Your task to perform on an android device: delete the emails in spam in the gmail app Image 0: 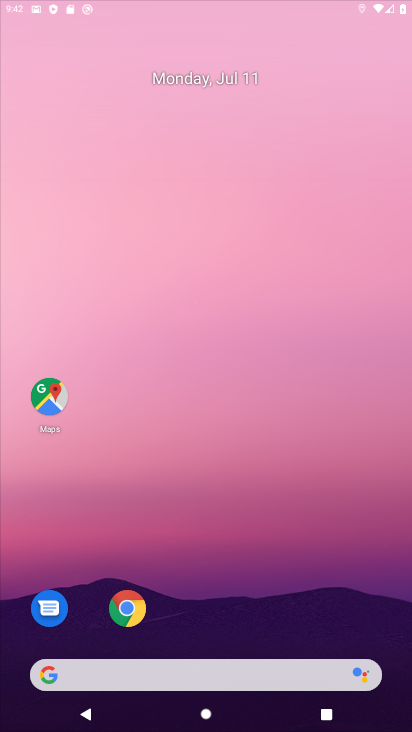
Step 0: drag from (291, 689) to (284, 214)
Your task to perform on an android device: delete the emails in spam in the gmail app Image 1: 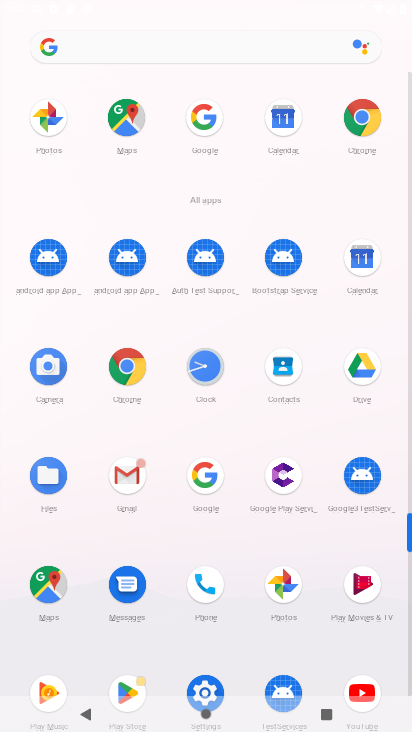
Step 1: click (120, 471)
Your task to perform on an android device: delete the emails in spam in the gmail app Image 2: 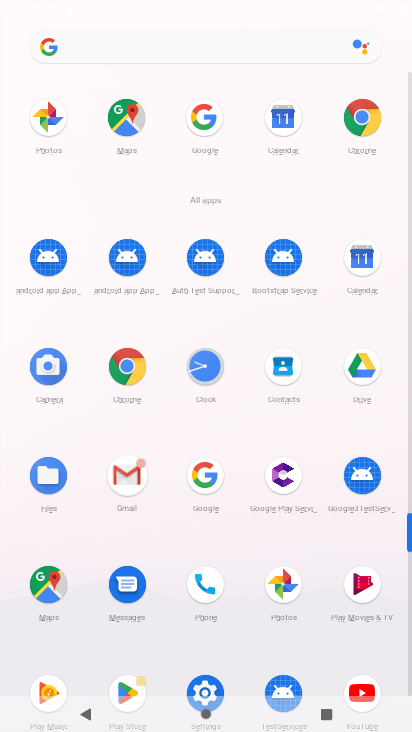
Step 2: click (120, 471)
Your task to perform on an android device: delete the emails in spam in the gmail app Image 3: 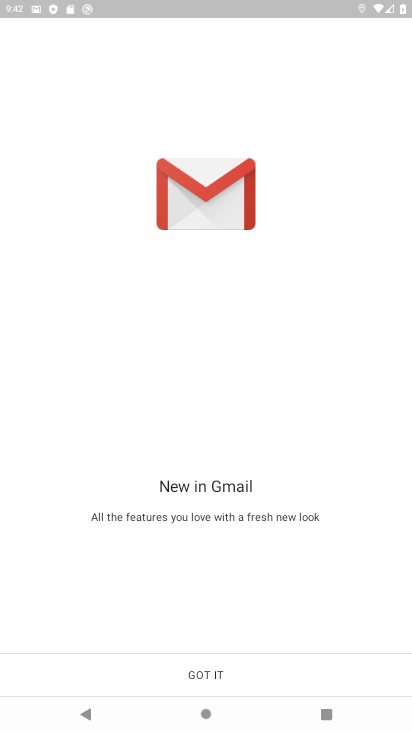
Step 3: click (225, 673)
Your task to perform on an android device: delete the emails in spam in the gmail app Image 4: 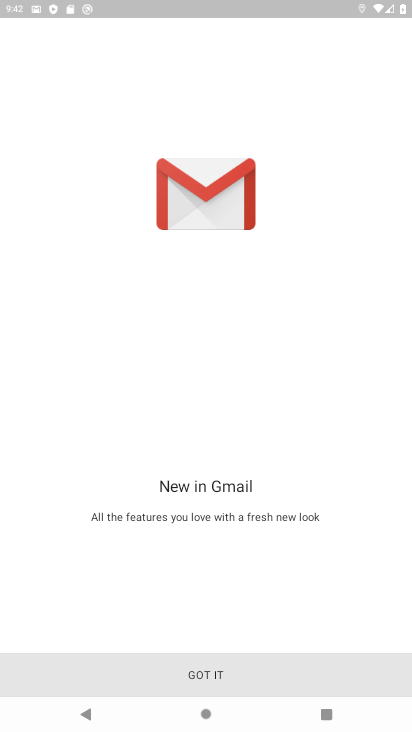
Step 4: click (223, 672)
Your task to perform on an android device: delete the emails in spam in the gmail app Image 5: 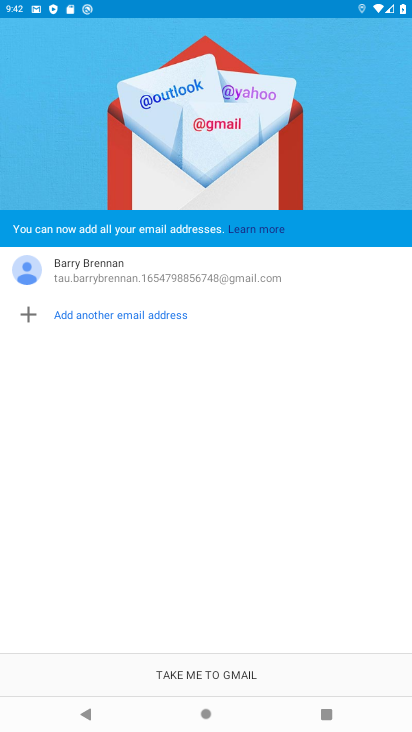
Step 5: click (221, 668)
Your task to perform on an android device: delete the emails in spam in the gmail app Image 6: 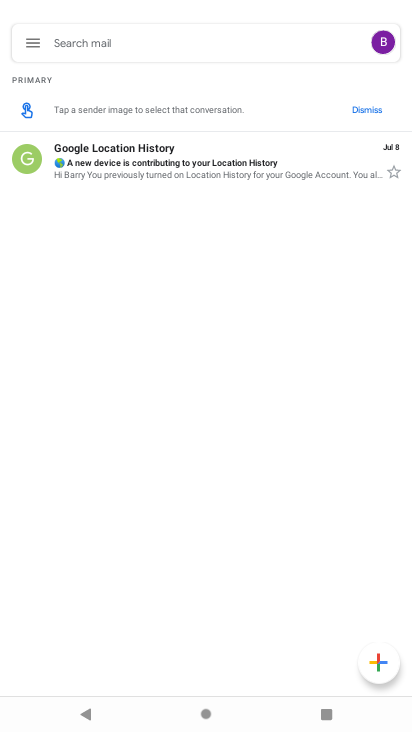
Step 6: click (31, 45)
Your task to perform on an android device: delete the emails in spam in the gmail app Image 7: 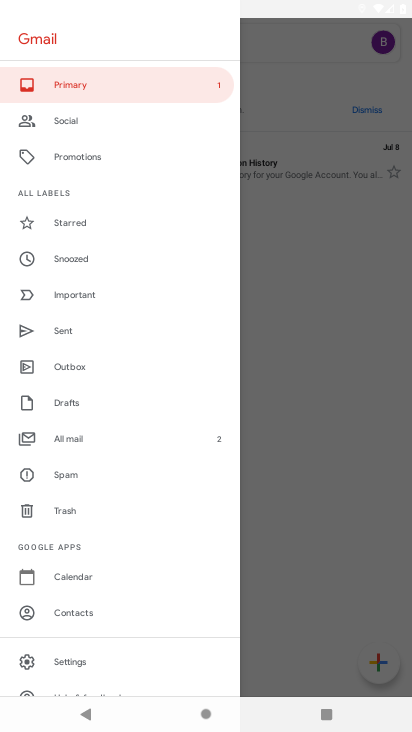
Step 7: click (81, 466)
Your task to perform on an android device: delete the emails in spam in the gmail app Image 8: 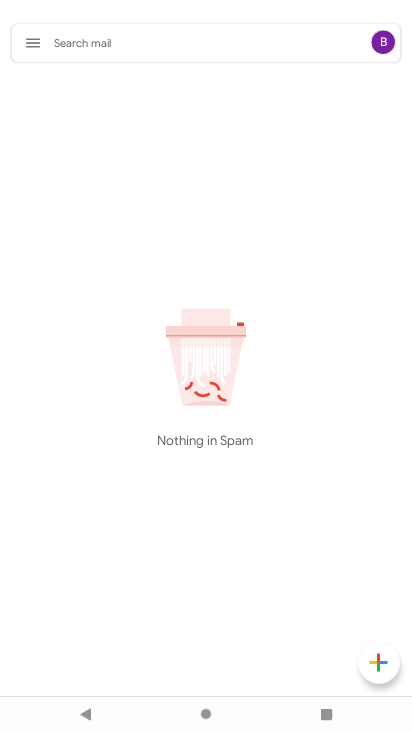
Step 8: task complete